Your task to perform on an android device: What is the recent news? Image 0: 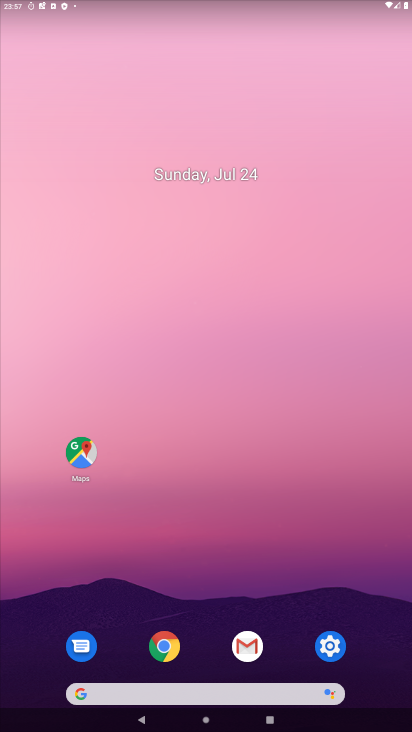
Step 0: click (163, 711)
Your task to perform on an android device: What is the recent news? Image 1: 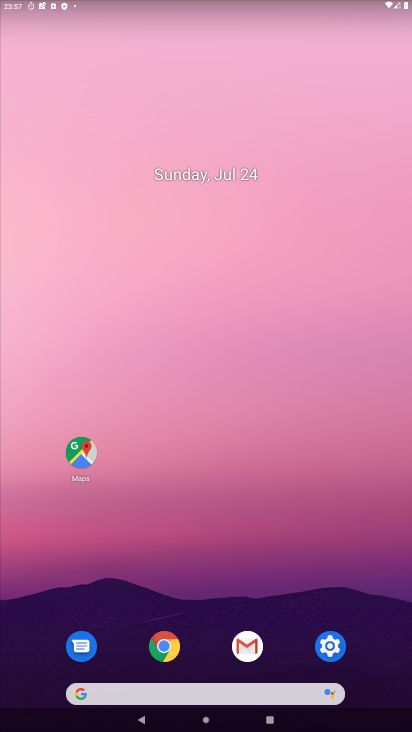
Step 1: click (186, 692)
Your task to perform on an android device: What is the recent news? Image 2: 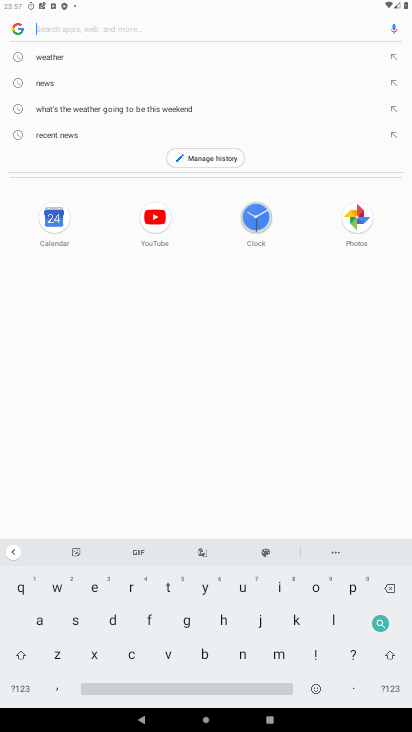
Step 2: click (50, 132)
Your task to perform on an android device: What is the recent news? Image 3: 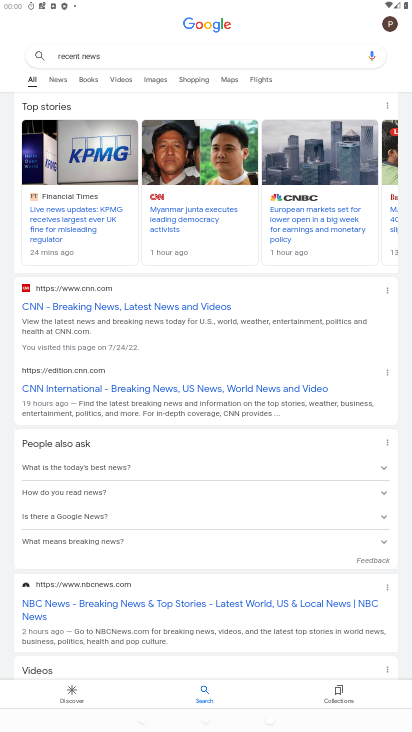
Step 3: task complete